Your task to perform on an android device: install app "Contacts" Image 0: 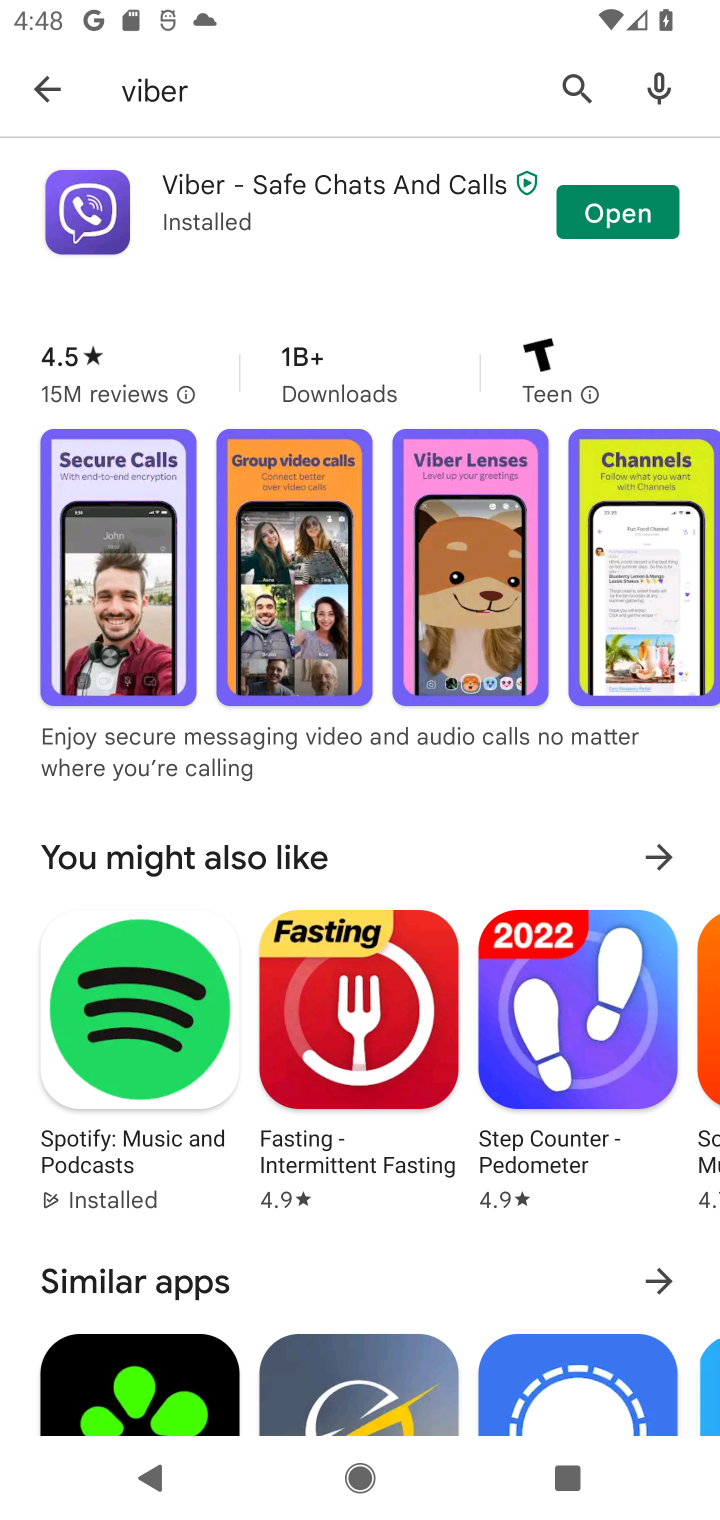
Step 0: press home button
Your task to perform on an android device: install app "Contacts" Image 1: 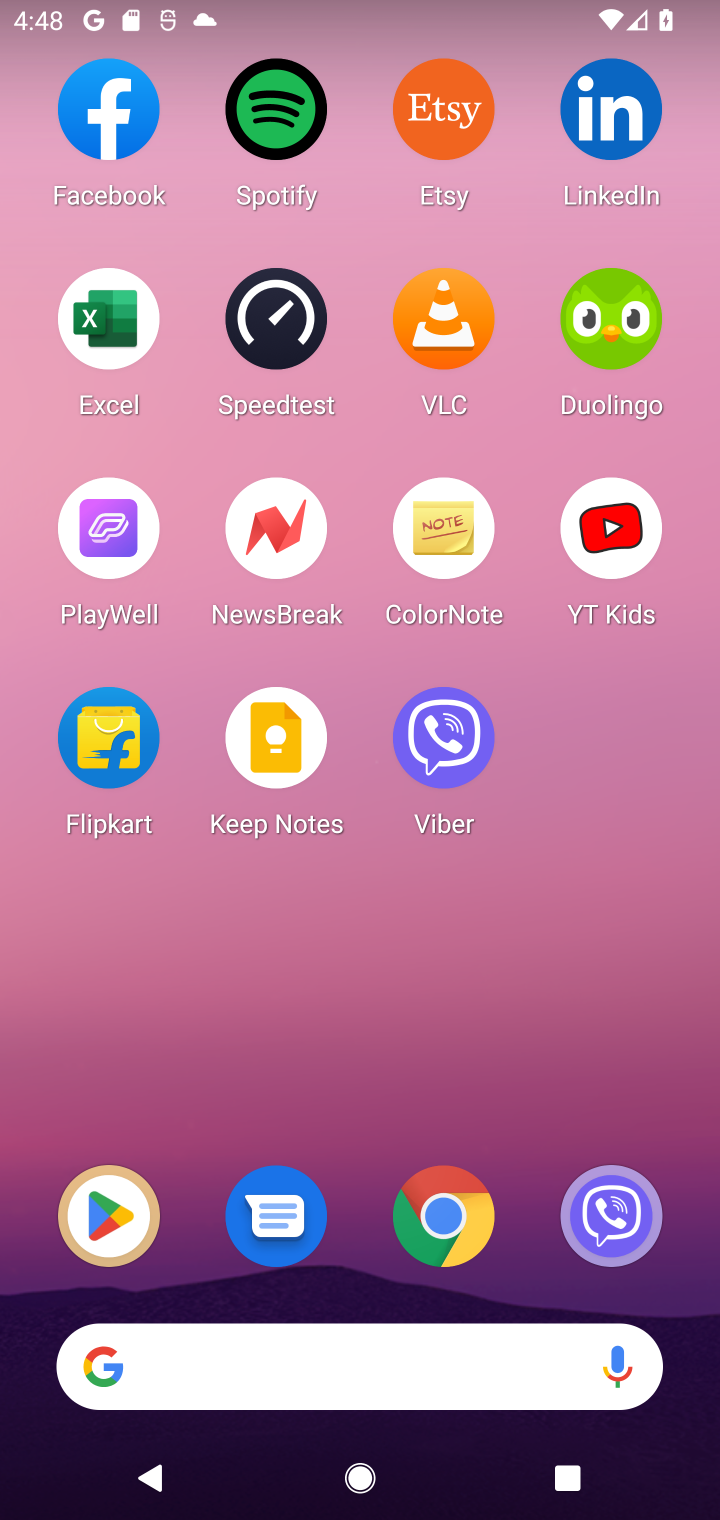
Step 1: drag from (373, 1035) to (301, 388)
Your task to perform on an android device: install app "Contacts" Image 2: 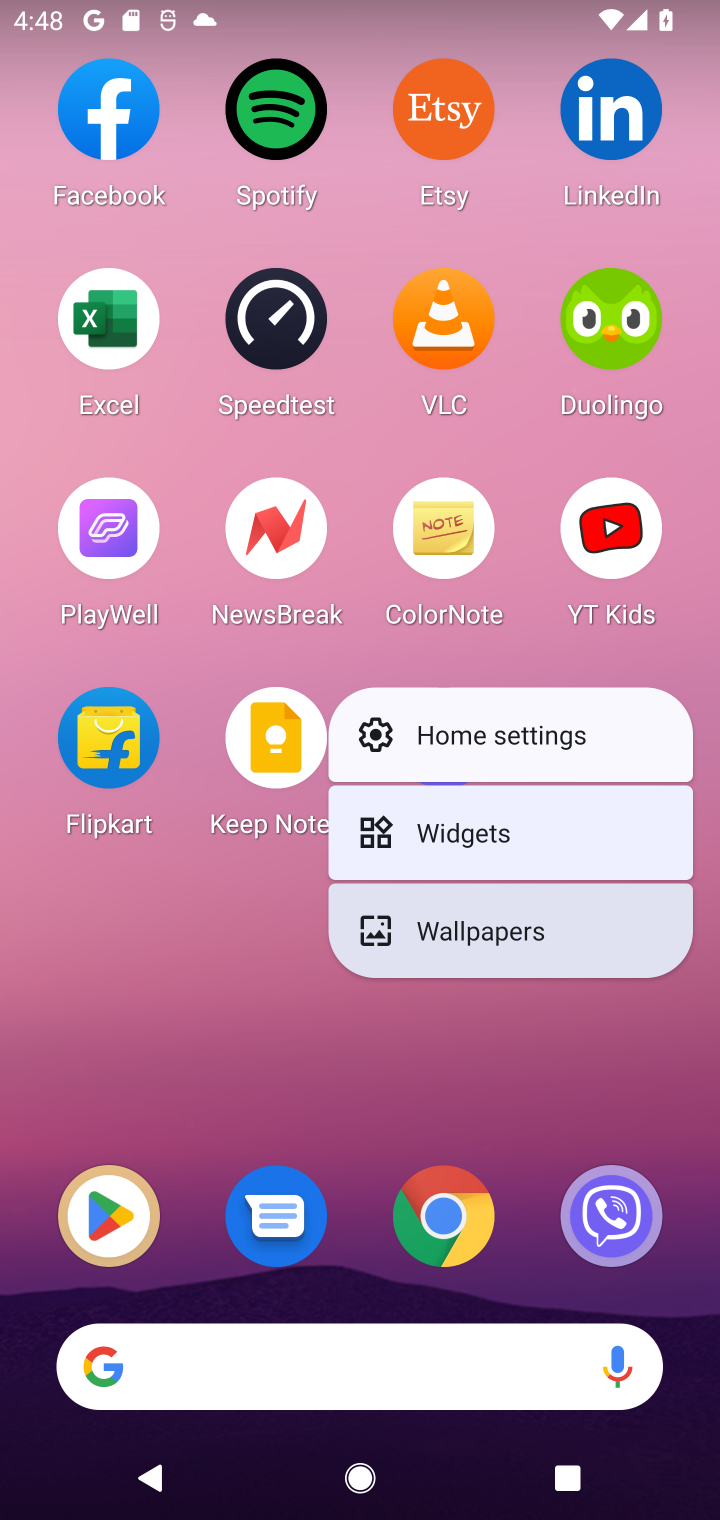
Step 2: click (216, 1094)
Your task to perform on an android device: install app "Contacts" Image 3: 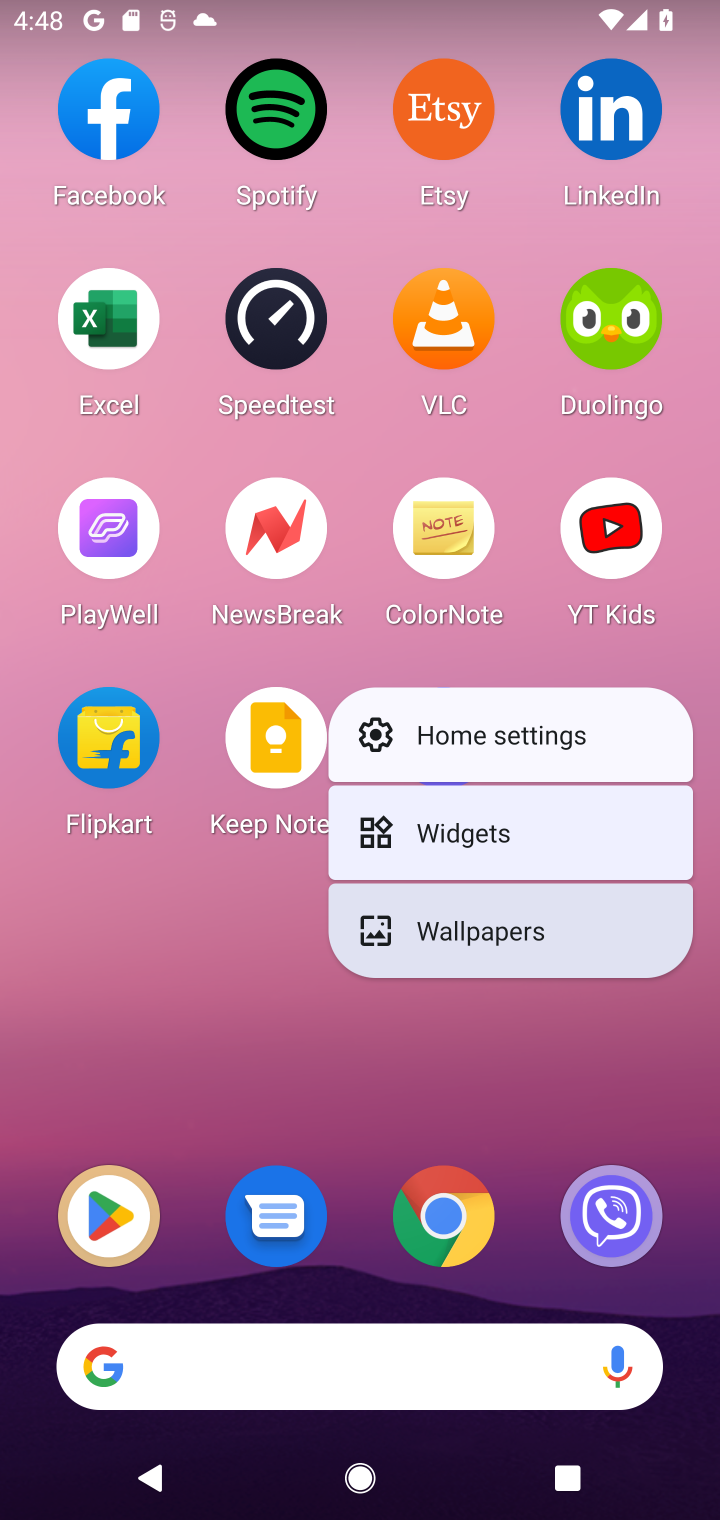
Step 3: drag from (216, 1094) to (236, 454)
Your task to perform on an android device: install app "Contacts" Image 4: 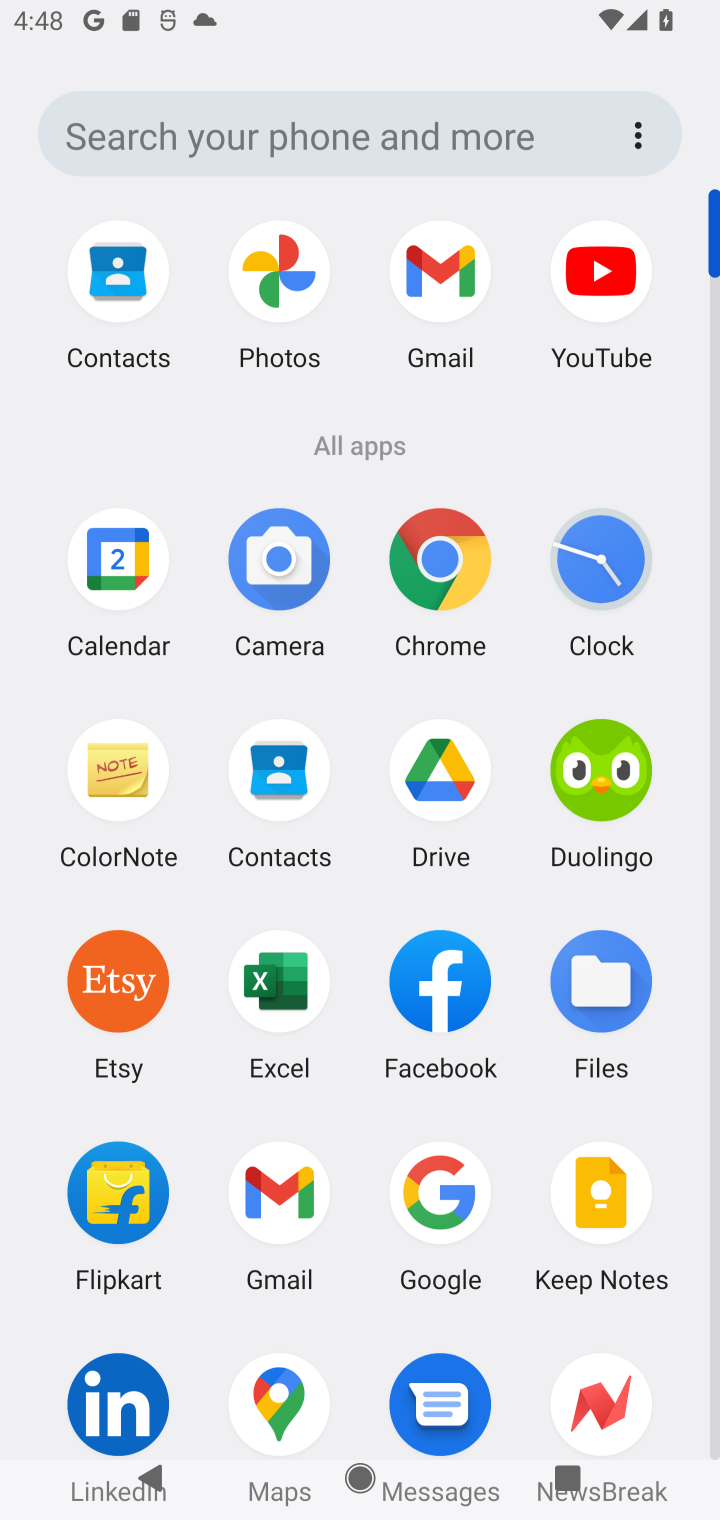
Step 4: click (236, 453)
Your task to perform on an android device: install app "Contacts" Image 5: 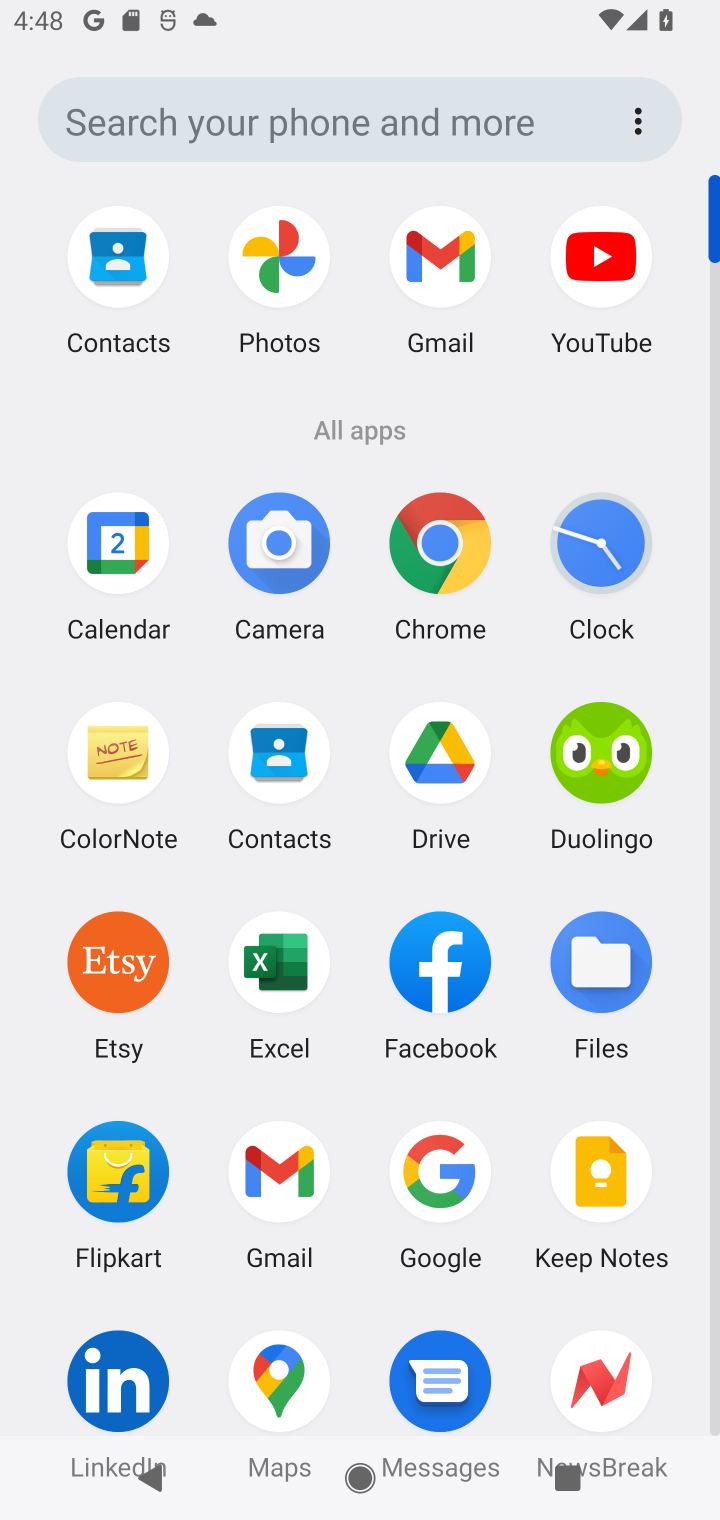
Step 5: click (236, 453)
Your task to perform on an android device: install app "Contacts" Image 6: 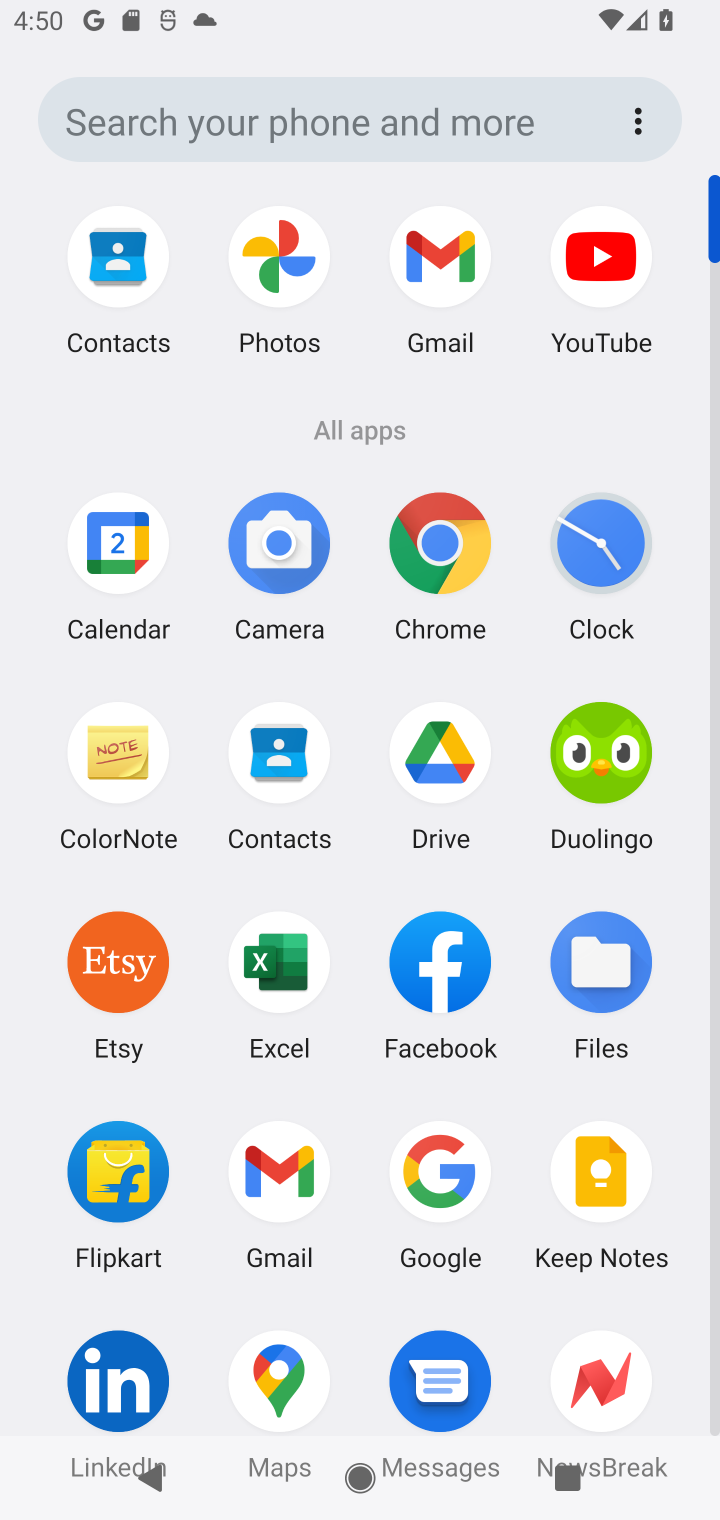
Step 6: click (236, 453)
Your task to perform on an android device: install app "Contacts" Image 7: 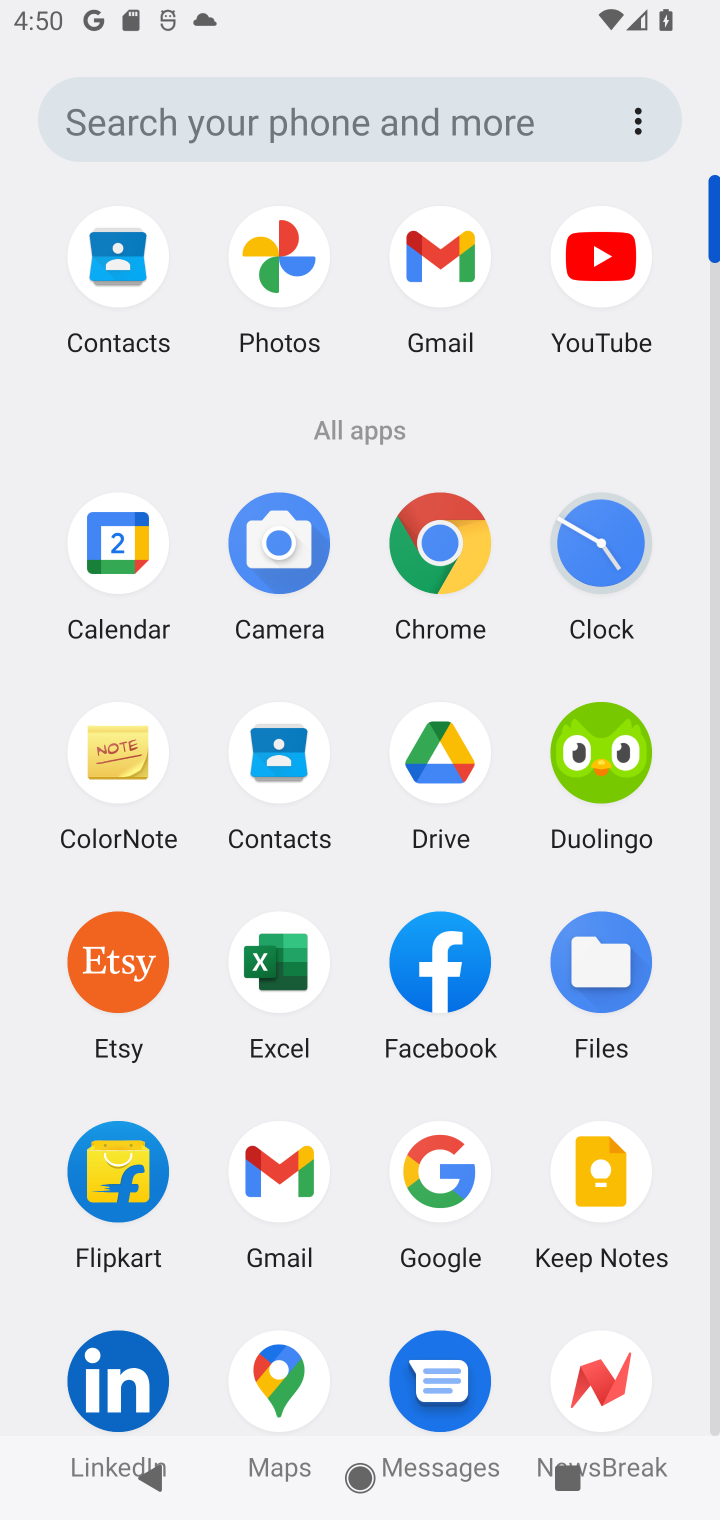
Step 7: click (219, 608)
Your task to perform on an android device: install app "Contacts" Image 8: 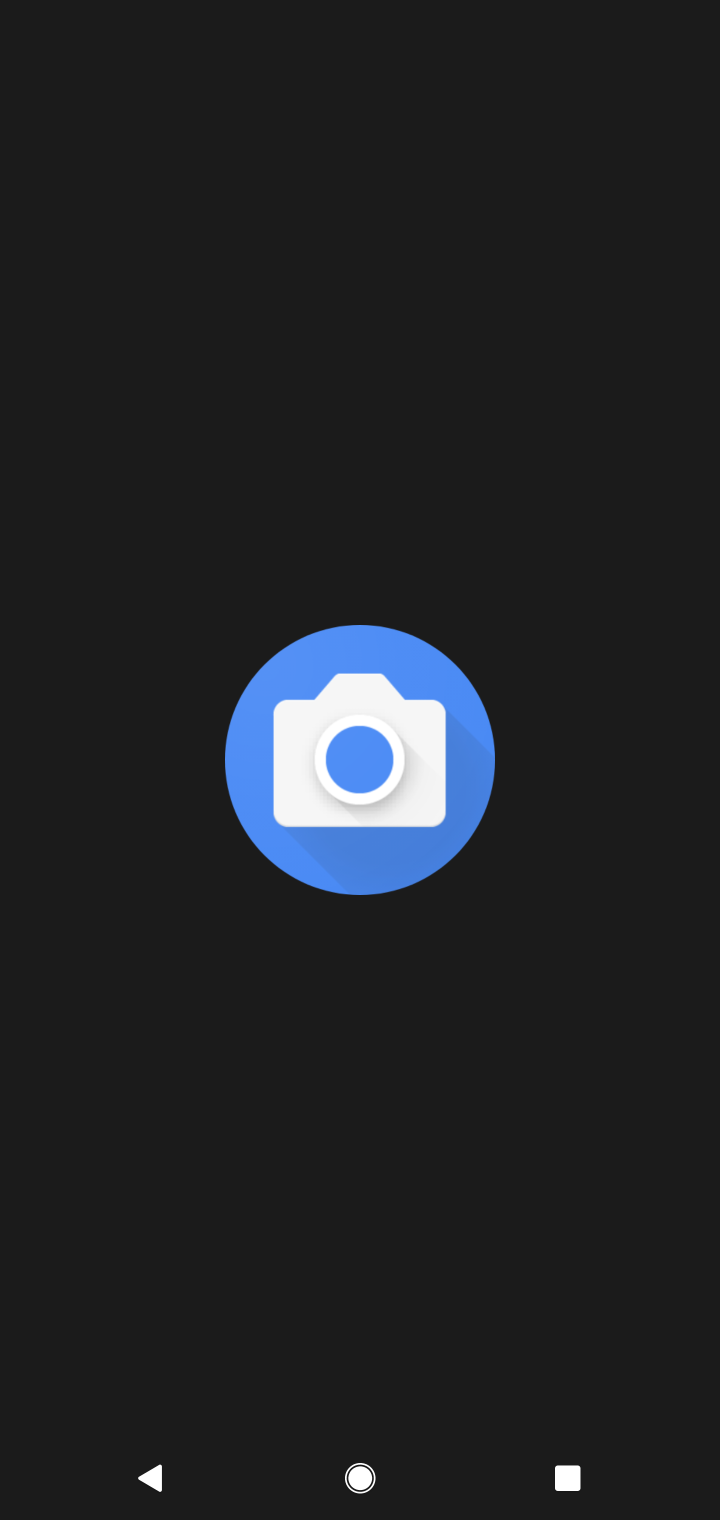
Step 8: task complete